Your task to perform on an android device: What is the recent news? Image 0: 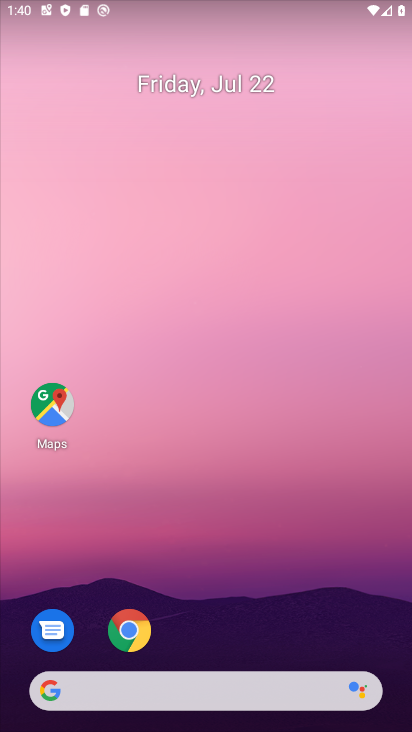
Step 0: click (130, 683)
Your task to perform on an android device: What is the recent news? Image 1: 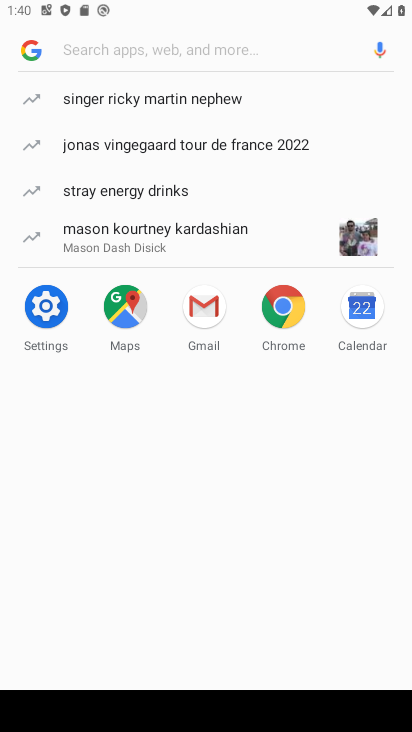
Step 1: type "recent news"
Your task to perform on an android device: What is the recent news? Image 2: 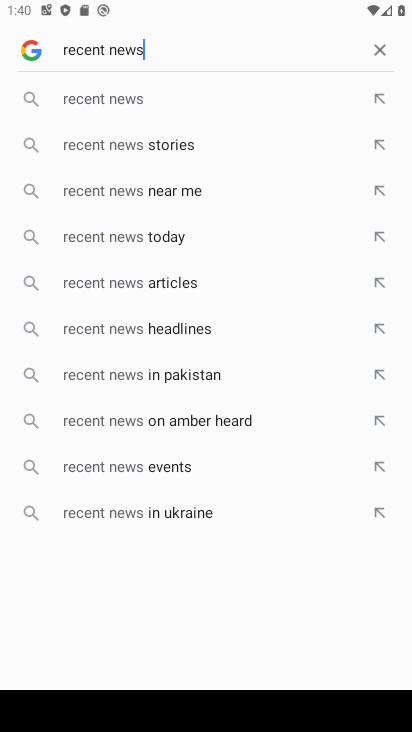
Step 2: click (101, 99)
Your task to perform on an android device: What is the recent news? Image 3: 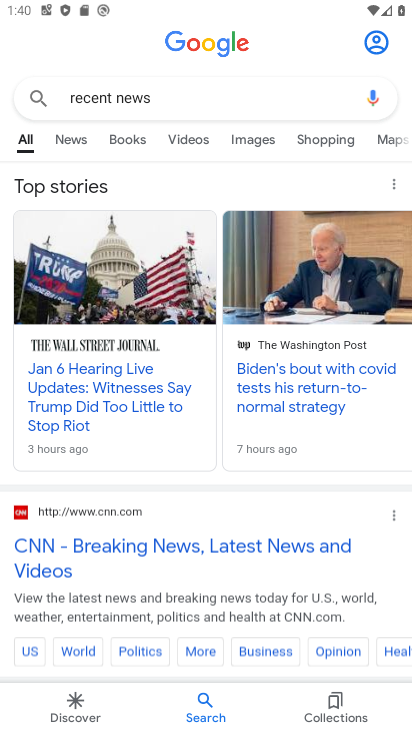
Step 3: task complete